Your task to perform on an android device: Open calendar and show me the fourth week of next month Image 0: 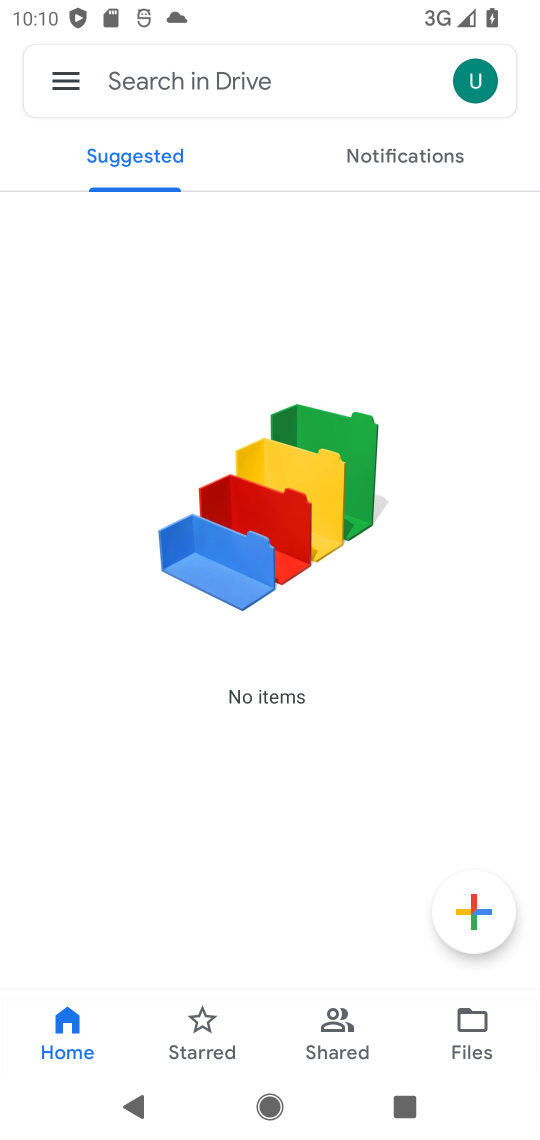
Step 0: press home button
Your task to perform on an android device: Open calendar and show me the fourth week of next month Image 1: 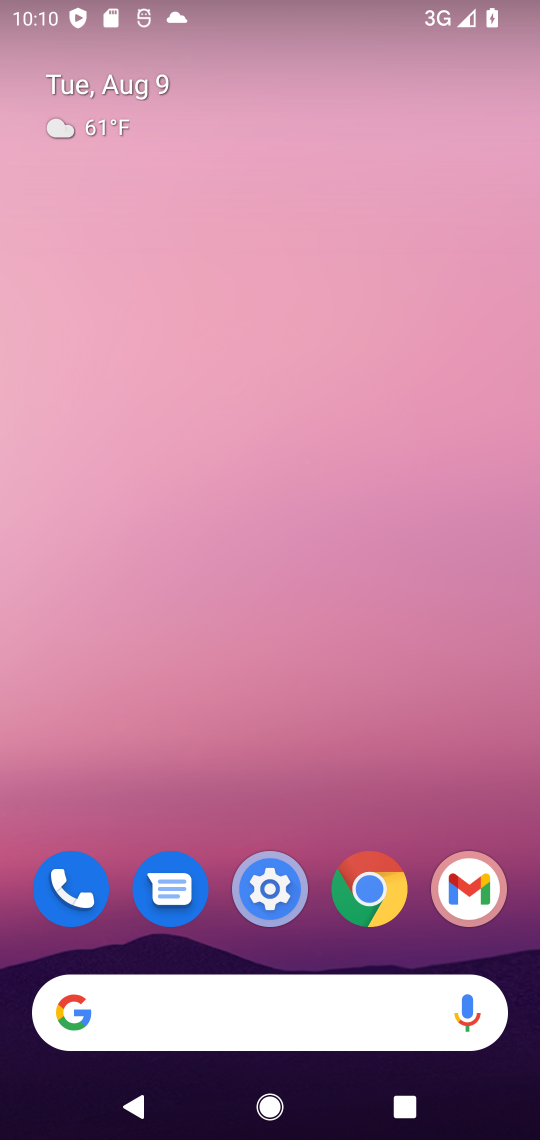
Step 1: drag from (276, 897) to (336, 275)
Your task to perform on an android device: Open calendar and show me the fourth week of next month Image 2: 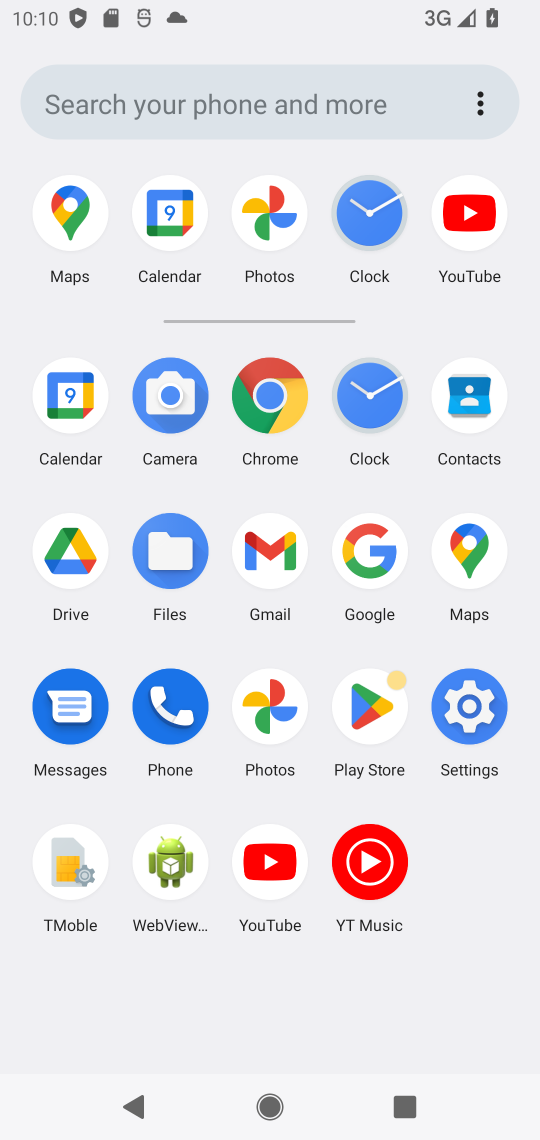
Step 2: click (86, 411)
Your task to perform on an android device: Open calendar and show me the fourth week of next month Image 3: 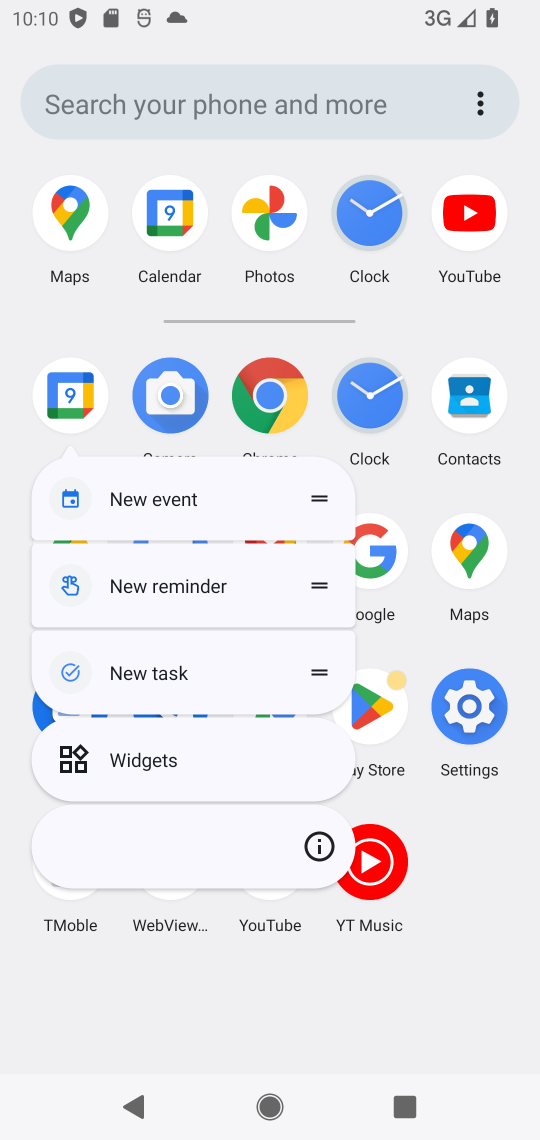
Step 3: click (64, 391)
Your task to perform on an android device: Open calendar and show me the fourth week of next month Image 4: 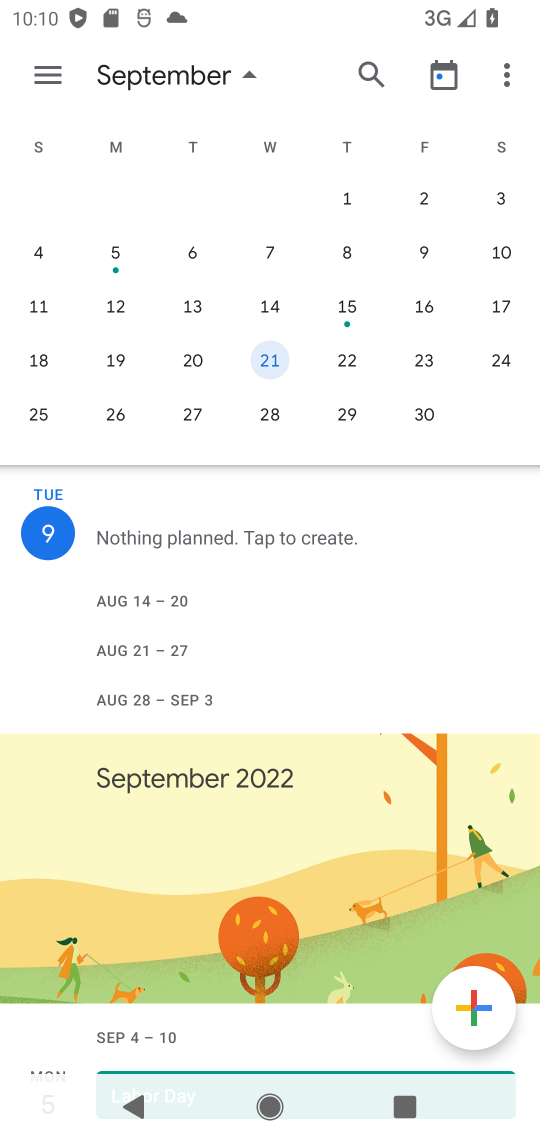
Step 4: drag from (485, 339) to (34, 440)
Your task to perform on an android device: Open calendar and show me the fourth week of next month Image 5: 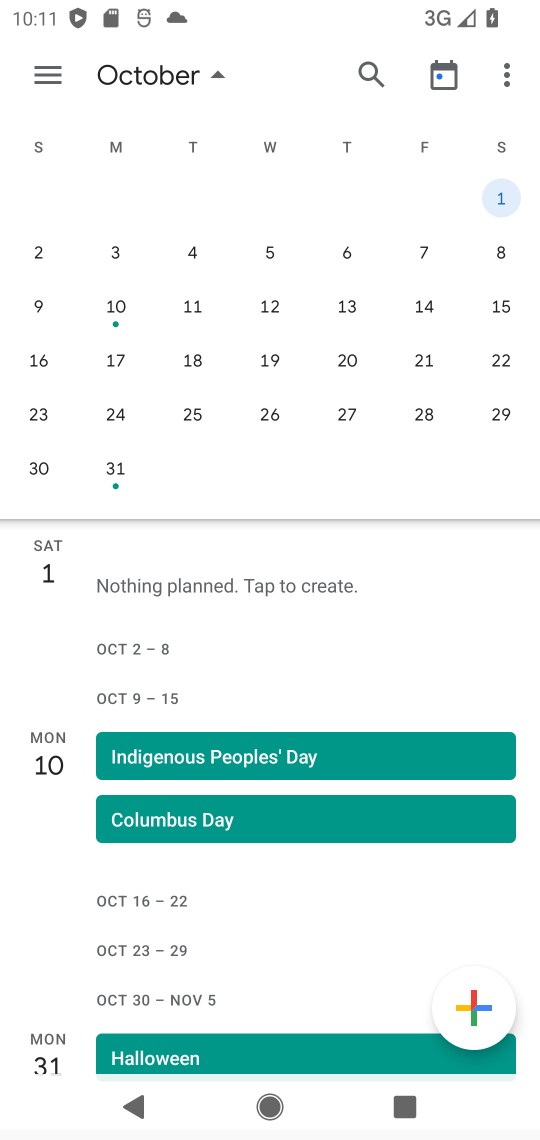
Step 5: click (420, 423)
Your task to perform on an android device: Open calendar and show me the fourth week of next month Image 6: 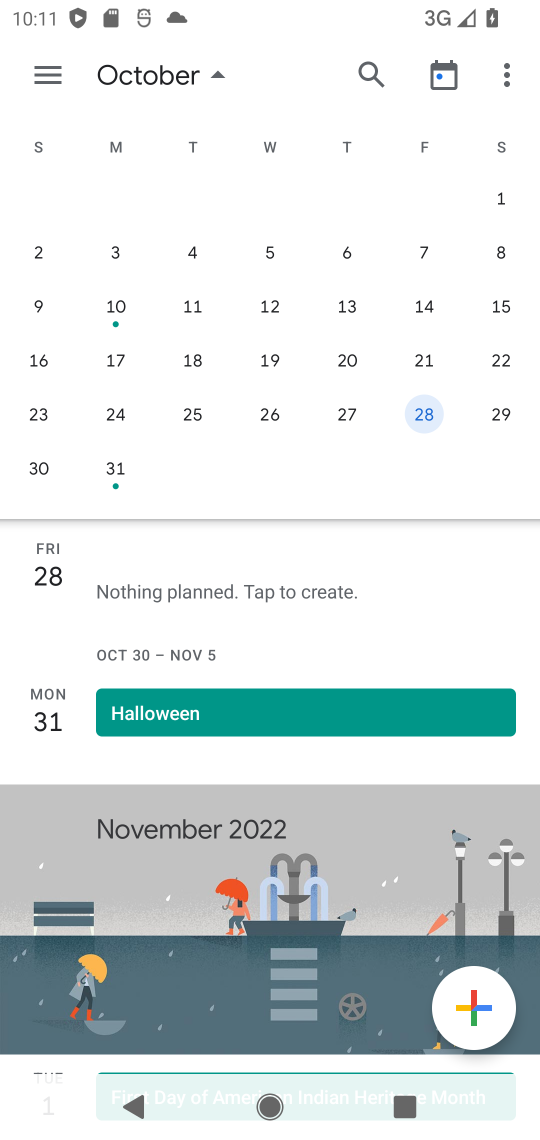
Step 6: task complete